Your task to perform on an android device: Add "usb-a to usb-b" to the cart on target.com Image 0: 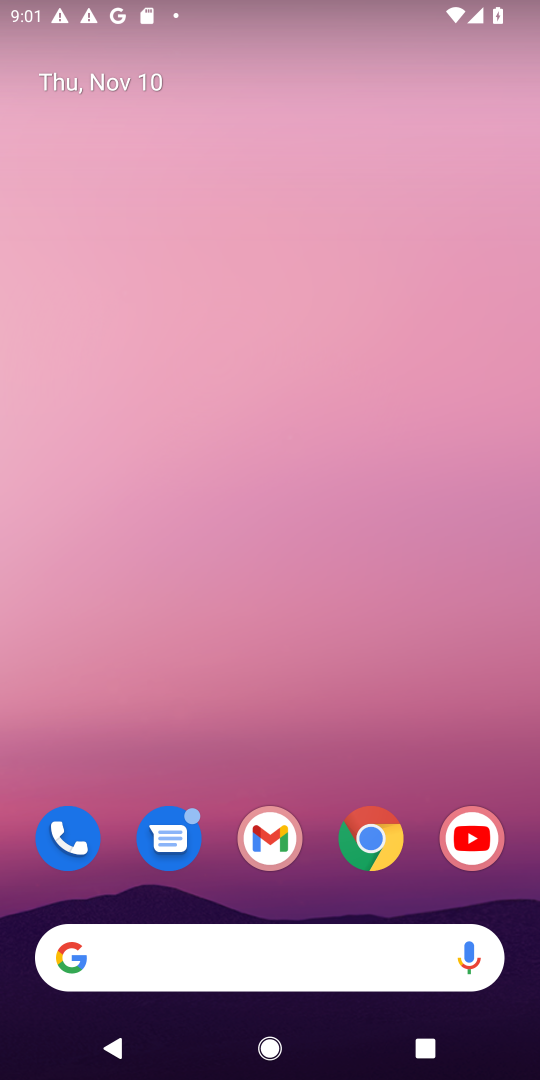
Step 0: drag from (321, 877) to (377, 0)
Your task to perform on an android device: Add "usb-a to usb-b" to the cart on target.com Image 1: 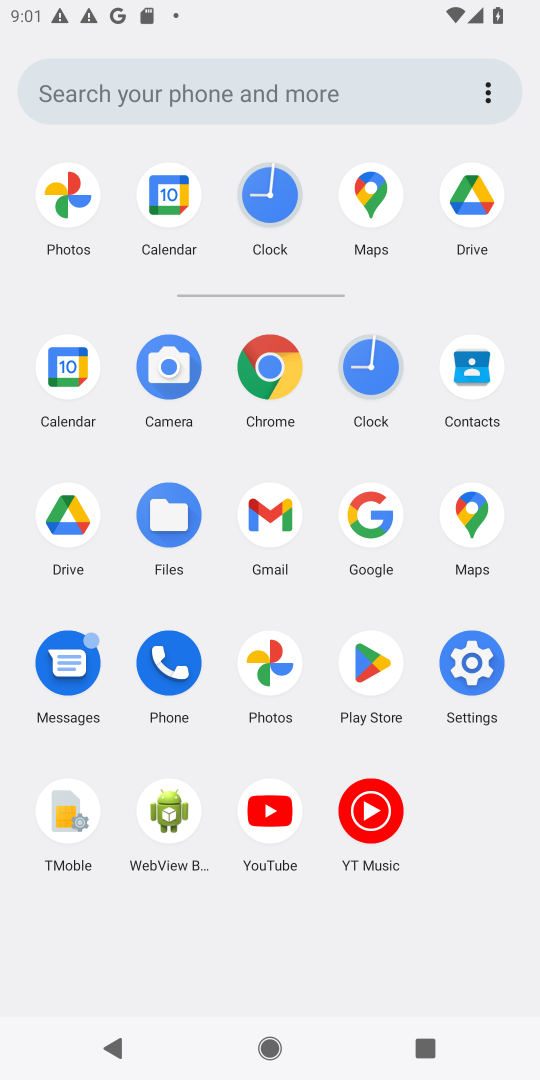
Step 1: click (265, 374)
Your task to perform on an android device: Add "usb-a to usb-b" to the cart on target.com Image 2: 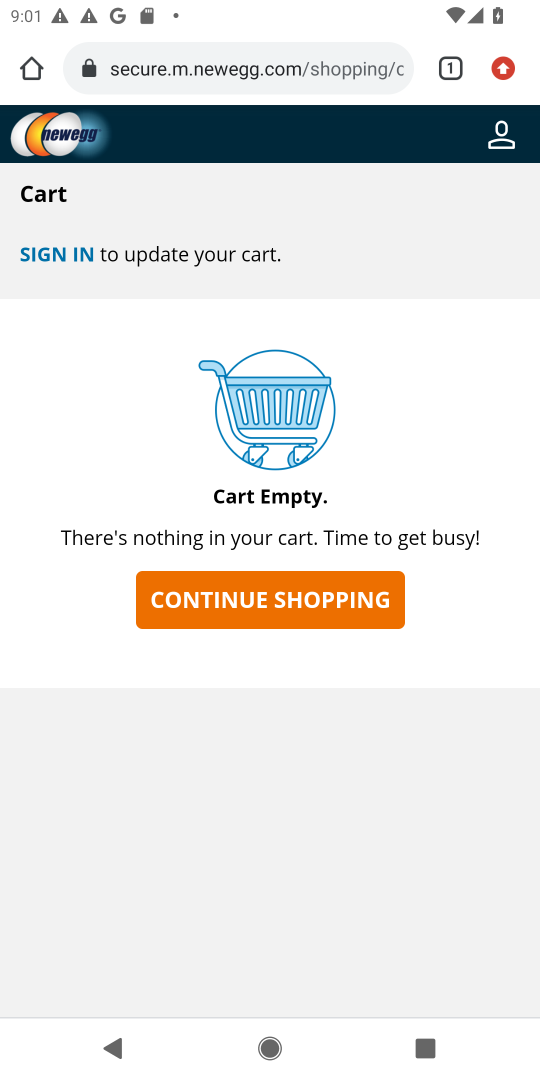
Step 2: click (225, 47)
Your task to perform on an android device: Add "usb-a to usb-b" to the cart on target.com Image 3: 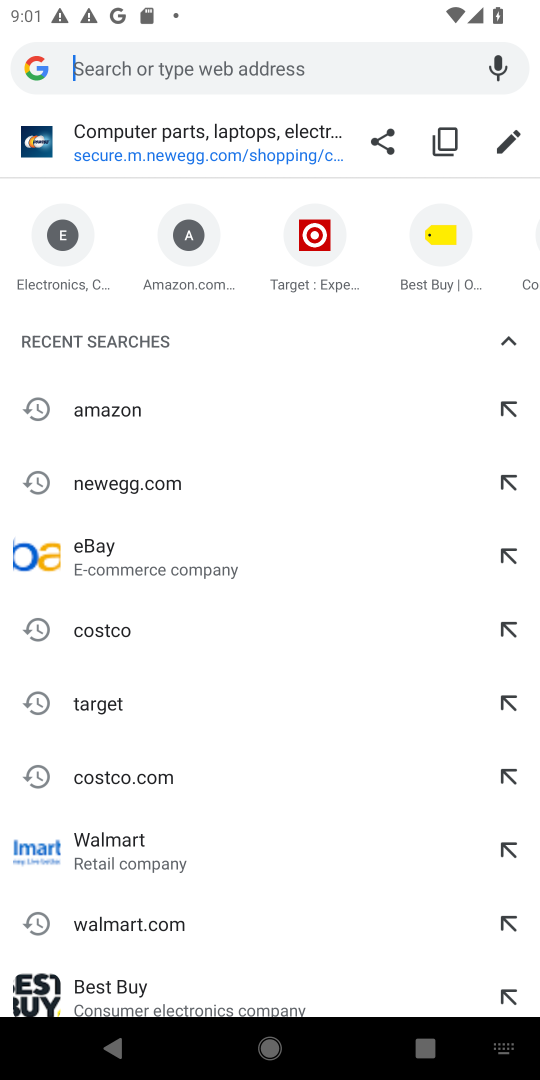
Step 3: type "target.com"
Your task to perform on an android device: Add "usb-a to usb-b" to the cart on target.com Image 4: 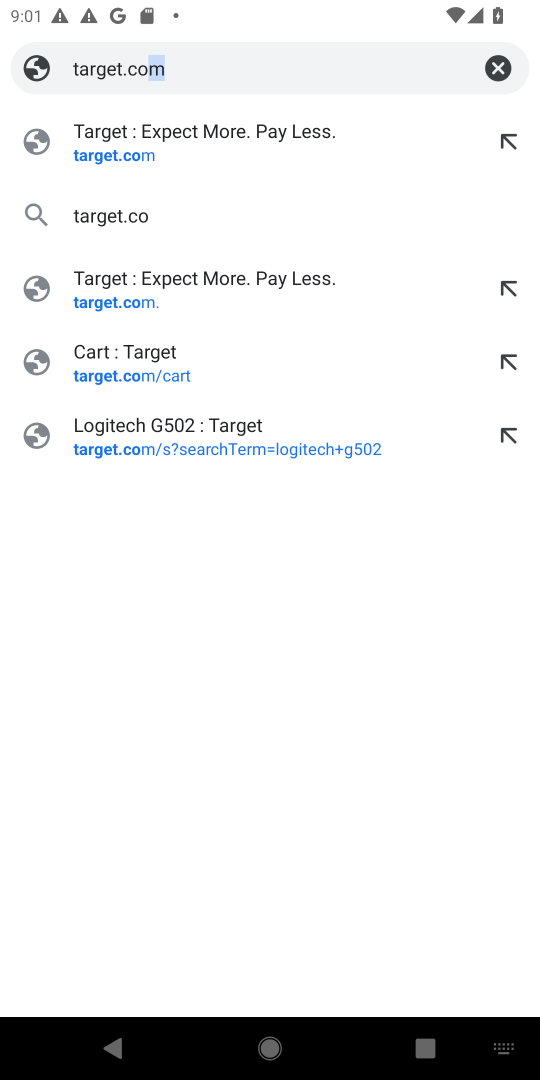
Step 4: press enter
Your task to perform on an android device: Add "usb-a to usb-b" to the cart on target.com Image 5: 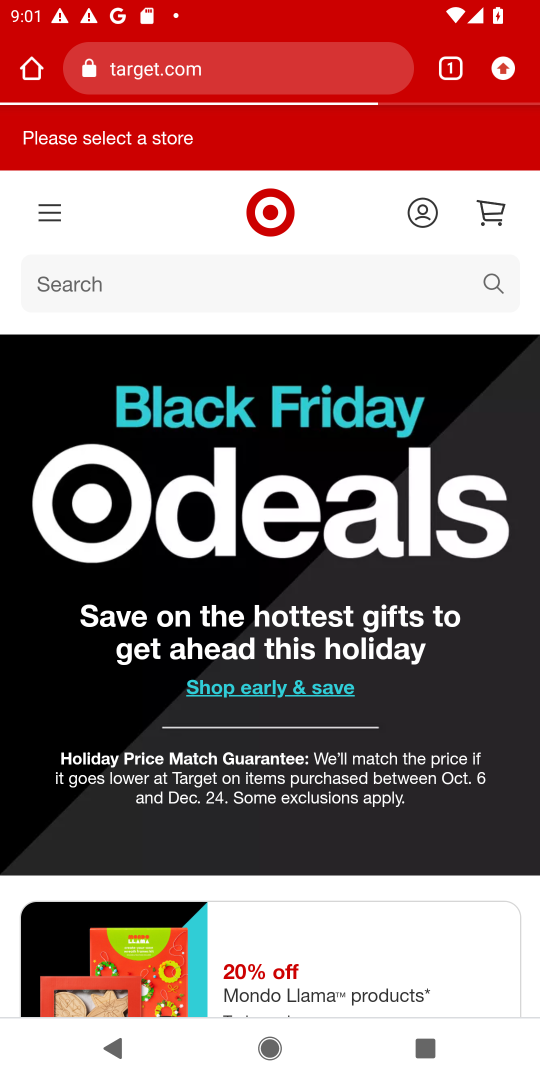
Step 5: click (262, 282)
Your task to perform on an android device: Add "usb-a to usb-b" to the cart on target.com Image 6: 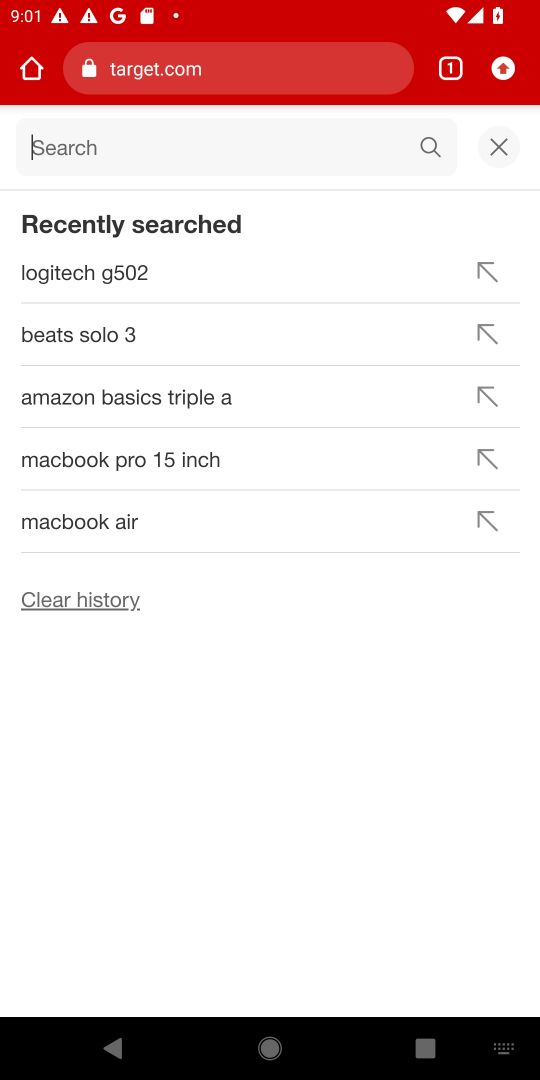
Step 6: type "usb-a to usb-b"
Your task to perform on an android device: Add "usb-a to usb-b" to the cart on target.com Image 7: 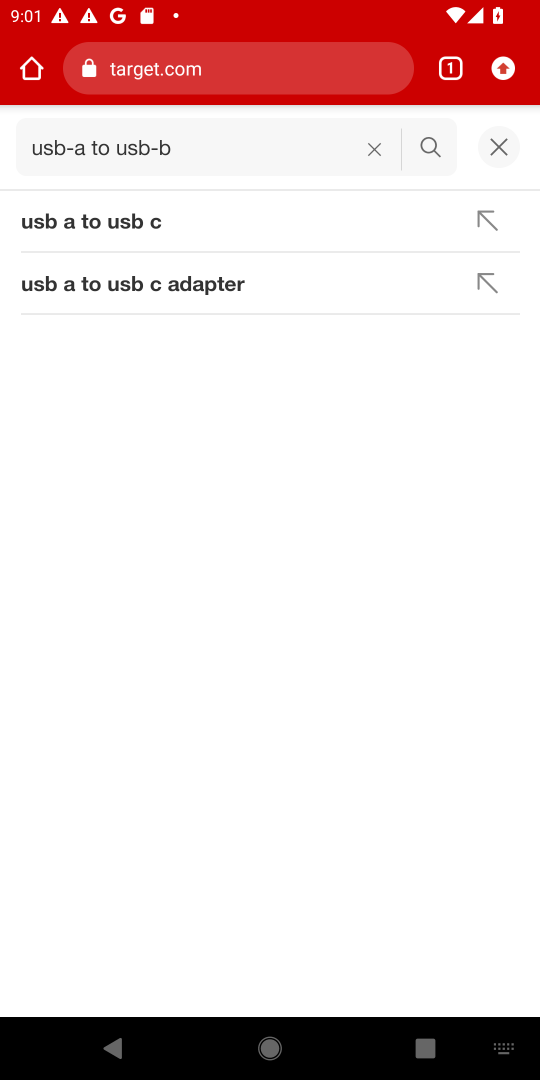
Step 7: press enter
Your task to perform on an android device: Add "usb-a to usb-b" to the cart on target.com Image 8: 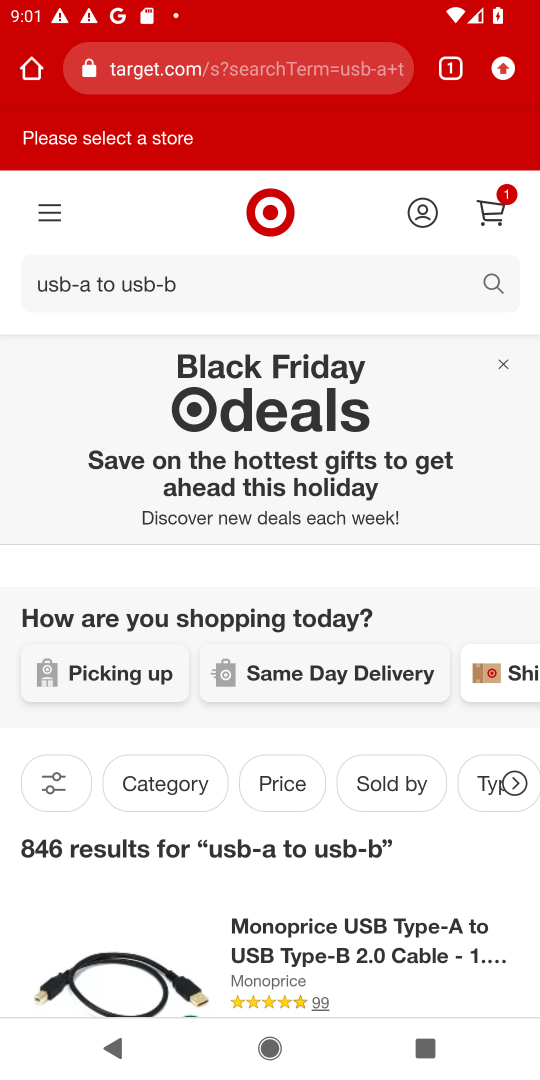
Step 8: drag from (402, 891) to (351, 249)
Your task to perform on an android device: Add "usb-a to usb-b" to the cart on target.com Image 9: 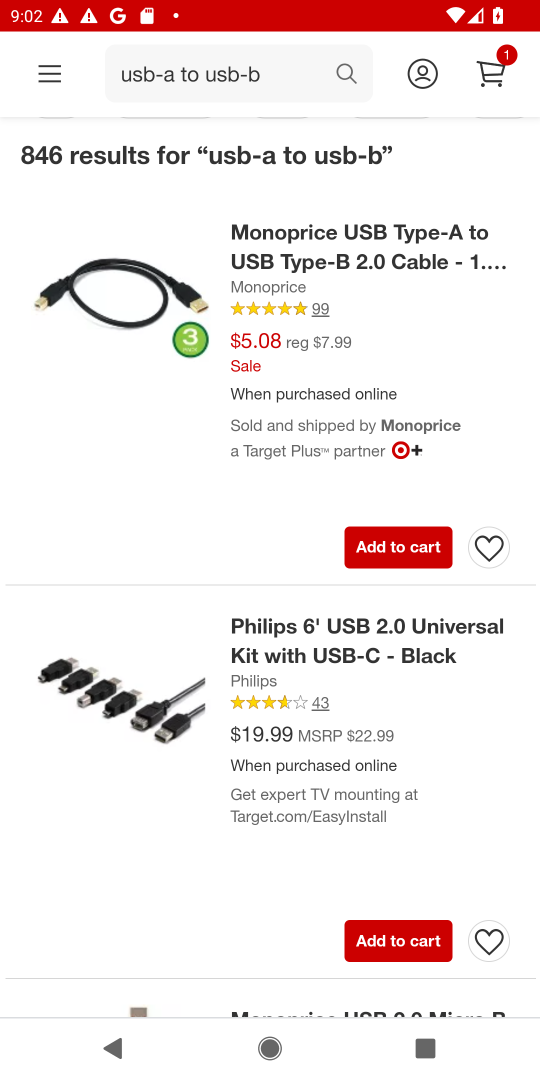
Step 9: click (385, 541)
Your task to perform on an android device: Add "usb-a to usb-b" to the cart on target.com Image 10: 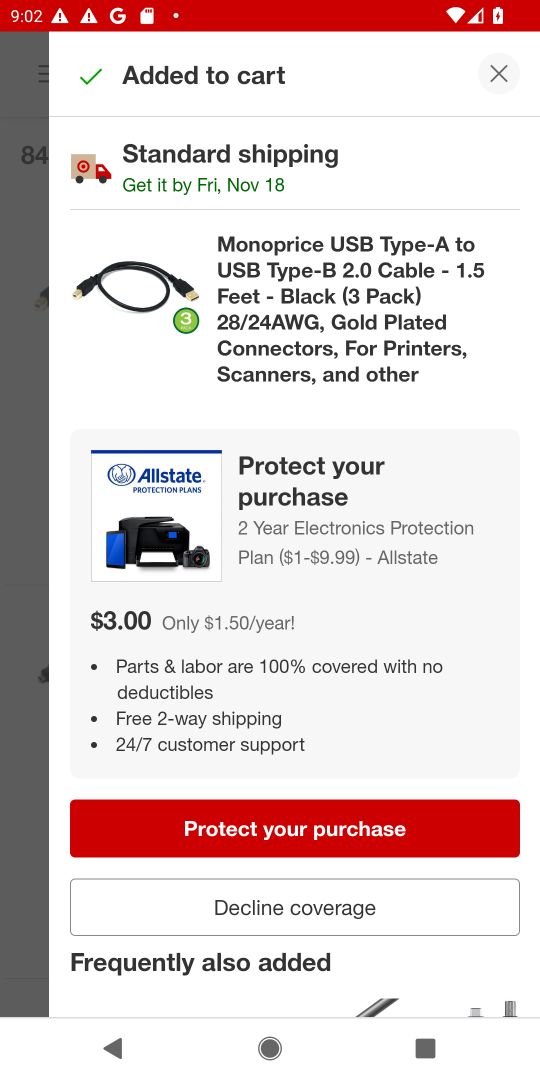
Step 10: task complete